Your task to perform on an android device: Set the phone to "Do not disturb". Image 0: 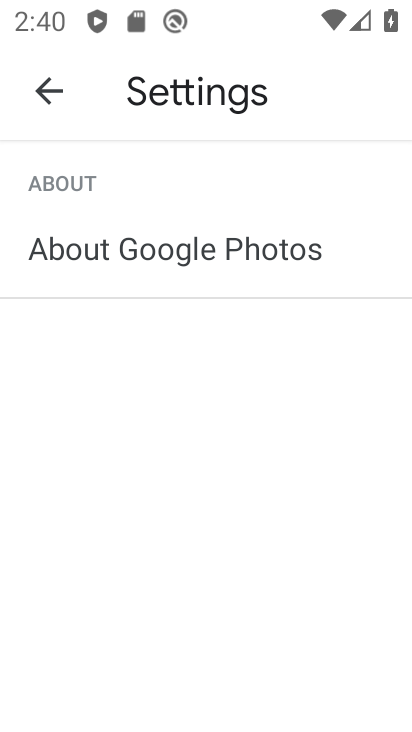
Step 0: press back button
Your task to perform on an android device: Set the phone to "Do not disturb". Image 1: 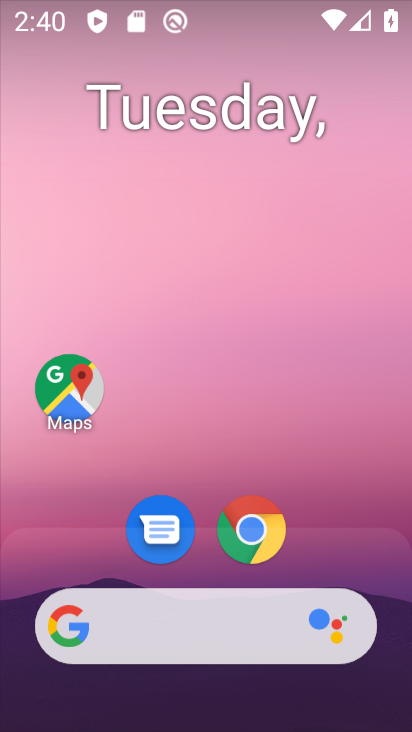
Step 1: drag from (167, 16) to (168, 557)
Your task to perform on an android device: Set the phone to "Do not disturb". Image 2: 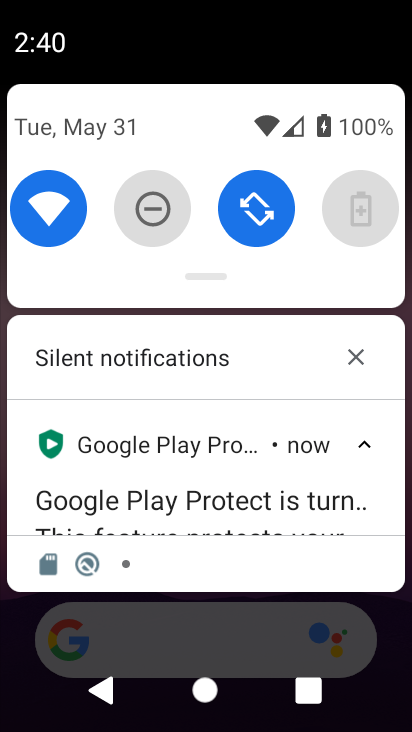
Step 2: click (152, 215)
Your task to perform on an android device: Set the phone to "Do not disturb". Image 3: 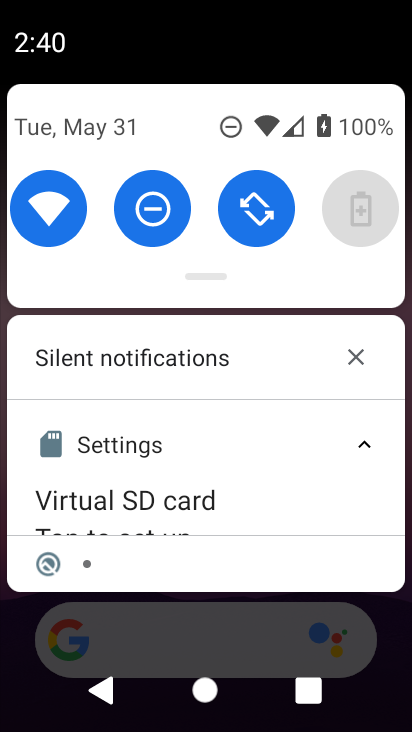
Step 3: task complete